Your task to perform on an android device: What's on my calendar today? Image 0: 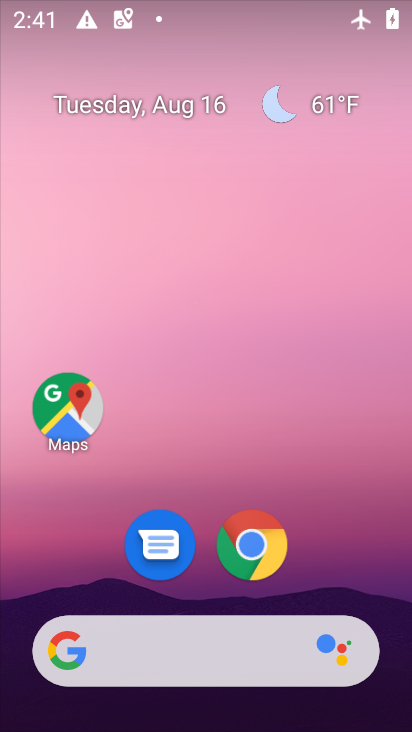
Step 0: drag from (203, 525) to (191, 249)
Your task to perform on an android device: What's on my calendar today? Image 1: 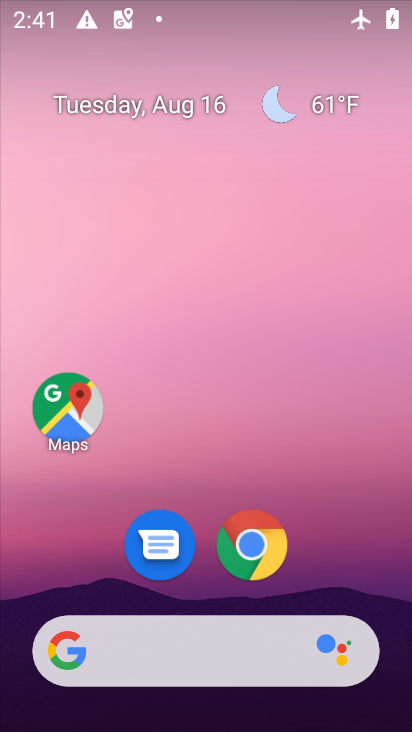
Step 1: drag from (187, 565) to (156, 207)
Your task to perform on an android device: What's on my calendar today? Image 2: 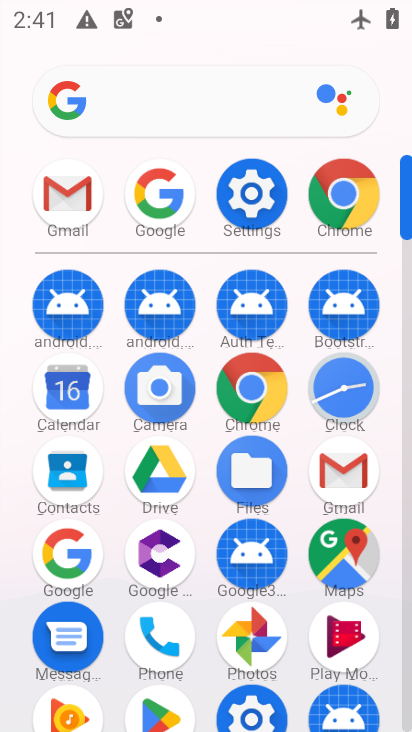
Step 2: click (60, 393)
Your task to perform on an android device: What's on my calendar today? Image 3: 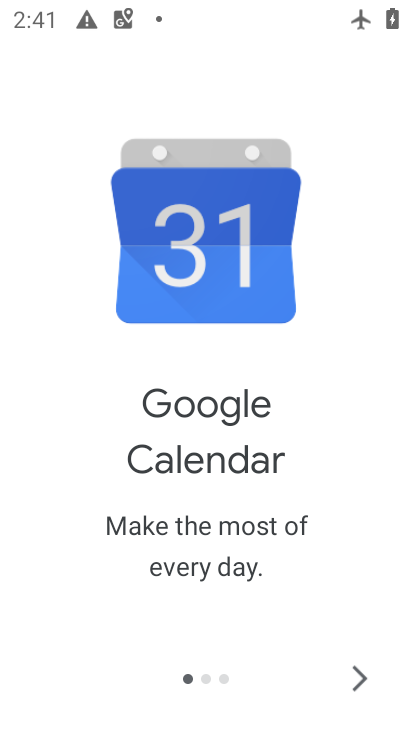
Step 3: click (342, 680)
Your task to perform on an android device: What's on my calendar today? Image 4: 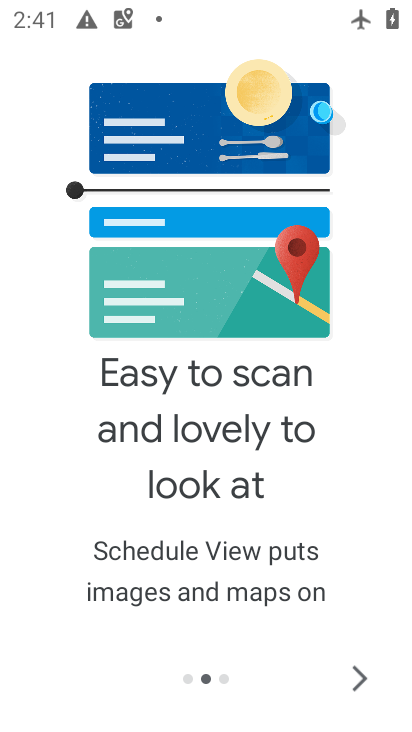
Step 4: click (342, 680)
Your task to perform on an android device: What's on my calendar today? Image 5: 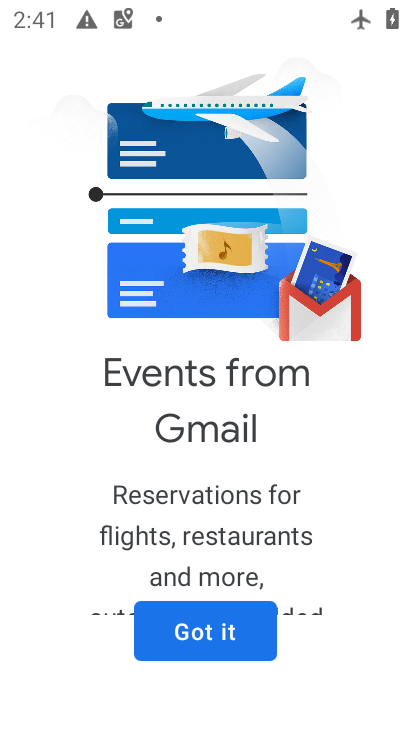
Step 5: click (211, 631)
Your task to perform on an android device: What's on my calendar today? Image 6: 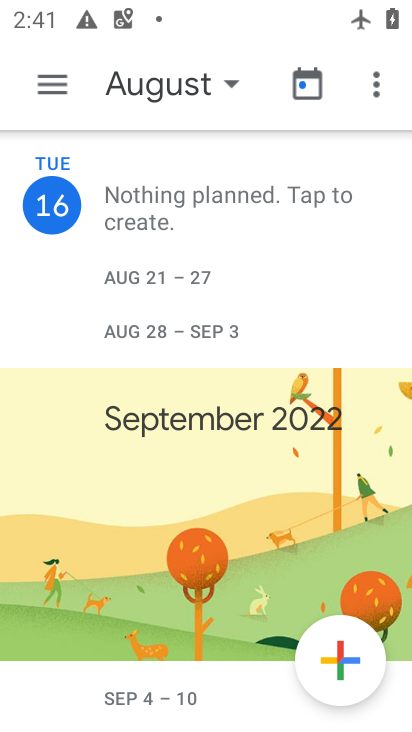
Step 6: task complete